Your task to perform on an android device: add a contact in the contacts app Image 0: 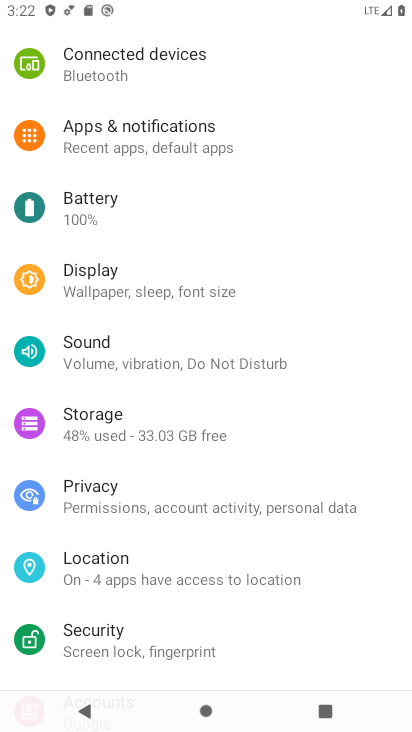
Step 0: press home button
Your task to perform on an android device: add a contact in the contacts app Image 1: 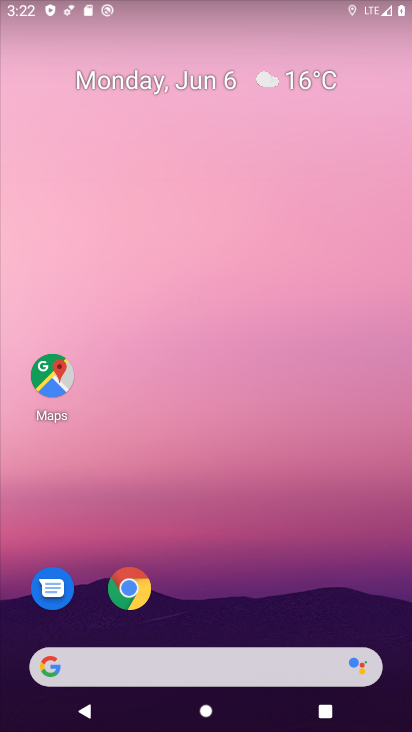
Step 1: click (205, 258)
Your task to perform on an android device: add a contact in the contacts app Image 2: 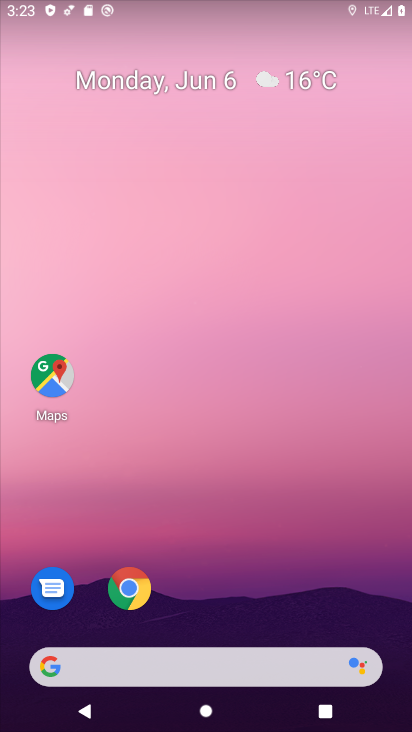
Step 2: drag from (273, 450) to (242, 249)
Your task to perform on an android device: add a contact in the contacts app Image 3: 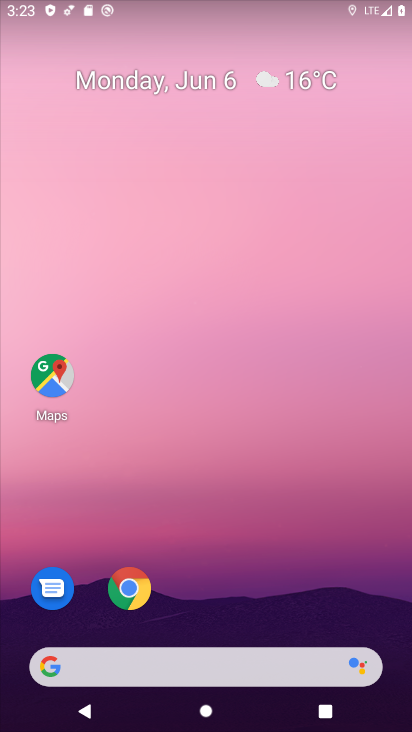
Step 3: drag from (262, 556) to (198, 201)
Your task to perform on an android device: add a contact in the contacts app Image 4: 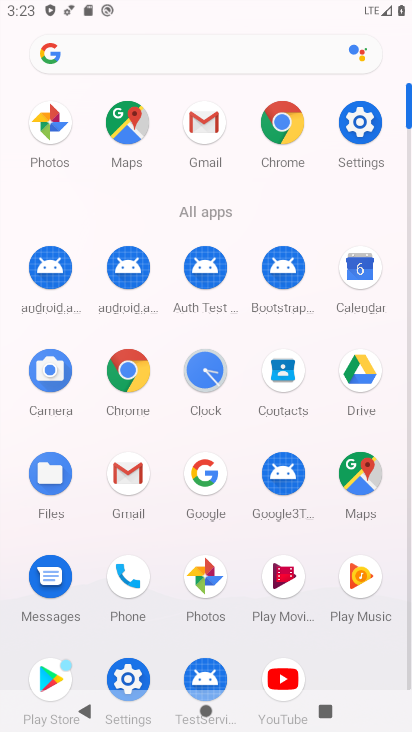
Step 4: click (277, 369)
Your task to perform on an android device: add a contact in the contacts app Image 5: 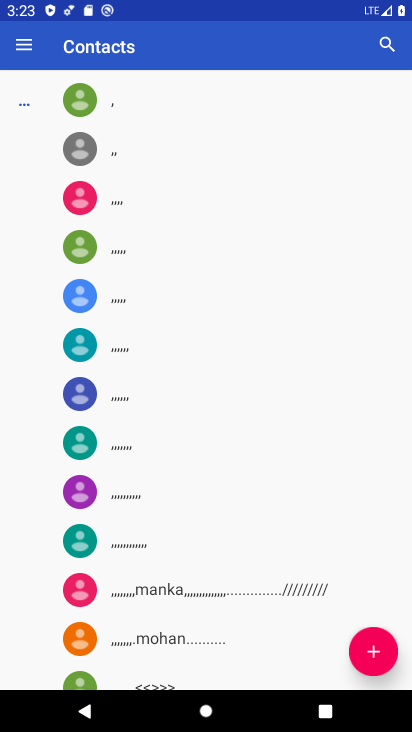
Step 5: click (379, 658)
Your task to perform on an android device: add a contact in the contacts app Image 6: 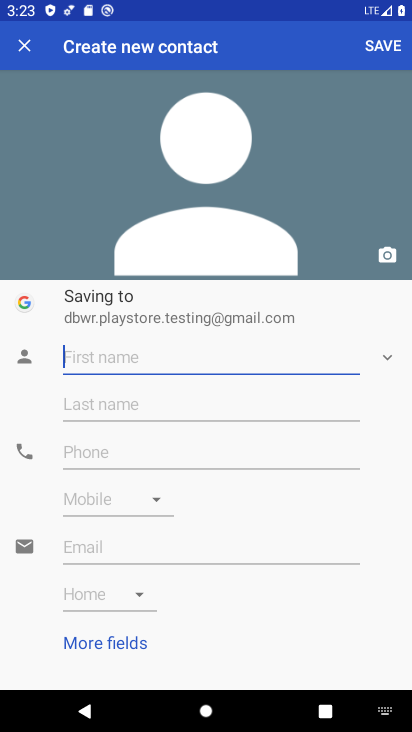
Step 6: type "djnjkdnkdj"
Your task to perform on an android device: add a contact in the contacts app Image 7: 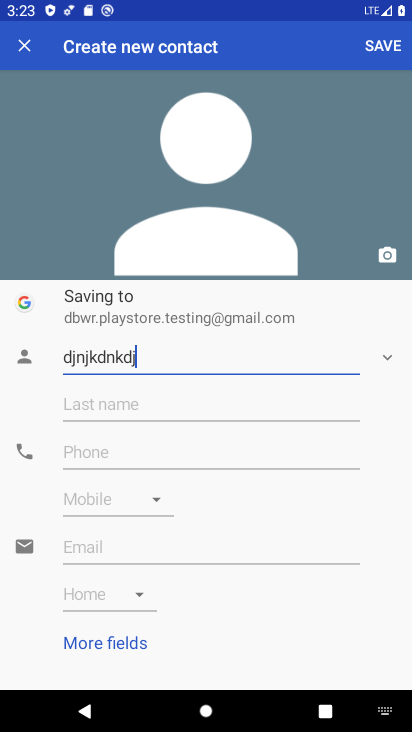
Step 7: click (250, 458)
Your task to perform on an android device: add a contact in the contacts app Image 8: 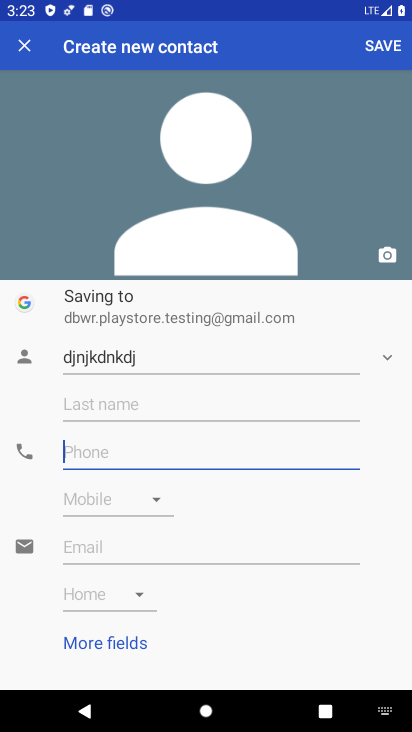
Step 8: type "83823002392"
Your task to perform on an android device: add a contact in the contacts app Image 9: 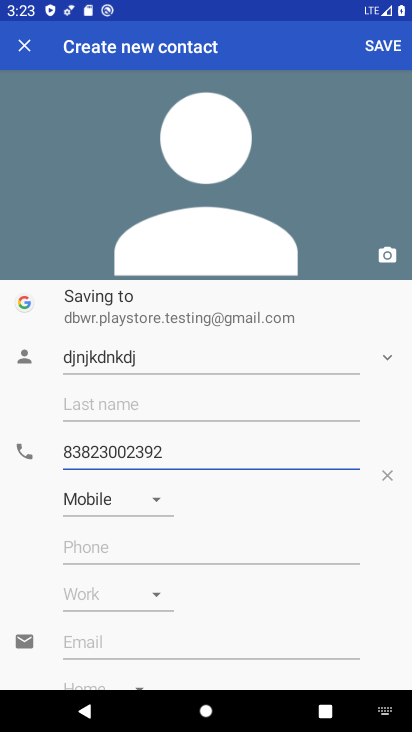
Step 9: click (390, 46)
Your task to perform on an android device: add a contact in the contacts app Image 10: 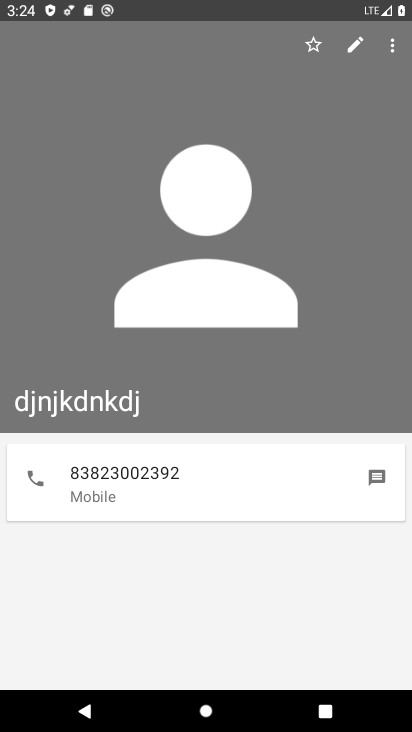
Step 10: task complete